Your task to perform on an android device: Open location settings Image 0: 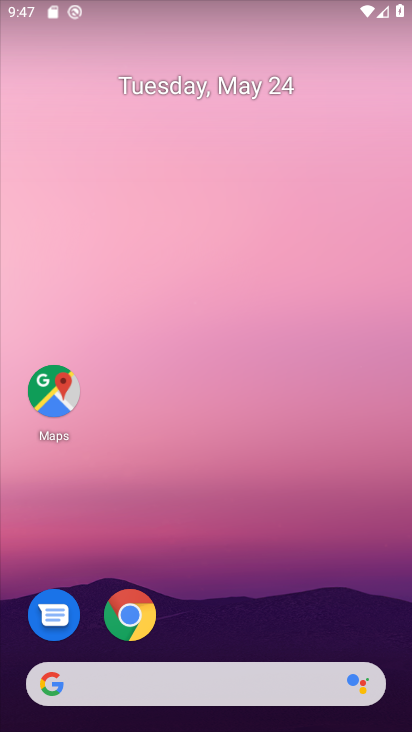
Step 0: drag from (390, 637) to (385, 251)
Your task to perform on an android device: Open location settings Image 1: 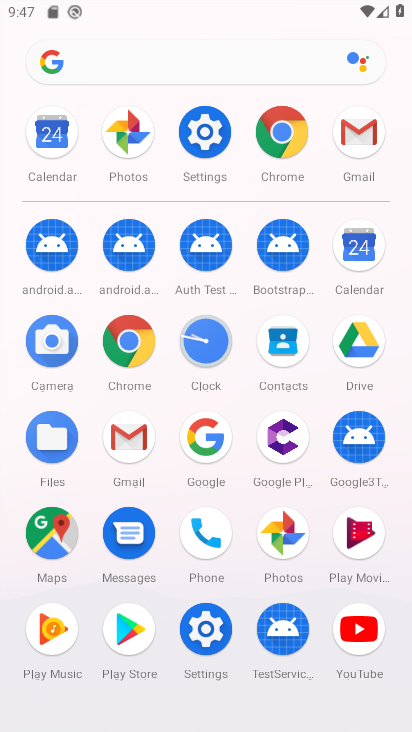
Step 1: click (213, 636)
Your task to perform on an android device: Open location settings Image 2: 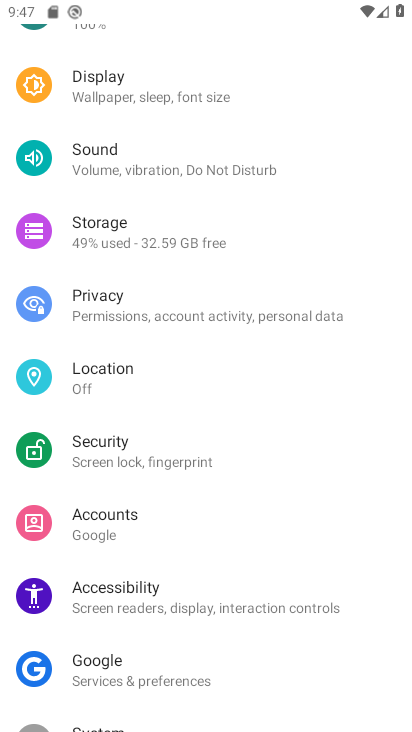
Step 2: drag from (336, 376) to (331, 479)
Your task to perform on an android device: Open location settings Image 3: 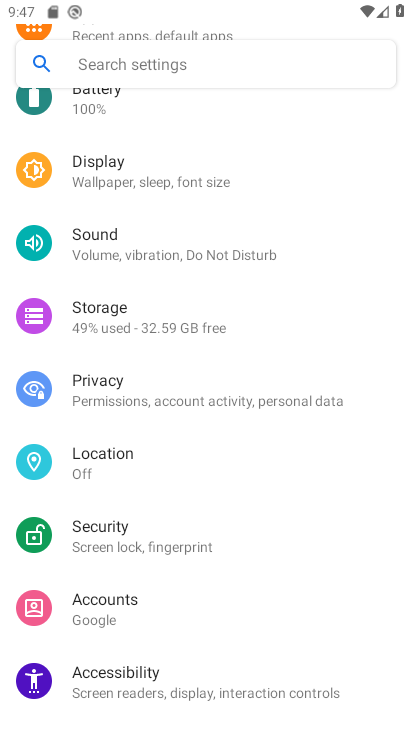
Step 3: drag from (355, 357) to (340, 472)
Your task to perform on an android device: Open location settings Image 4: 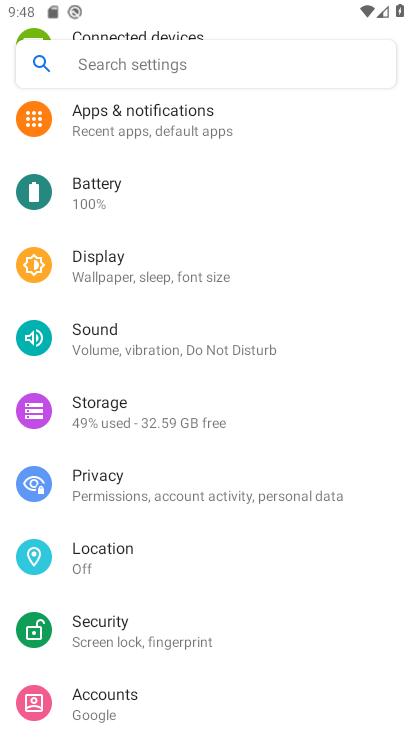
Step 4: drag from (349, 327) to (344, 473)
Your task to perform on an android device: Open location settings Image 5: 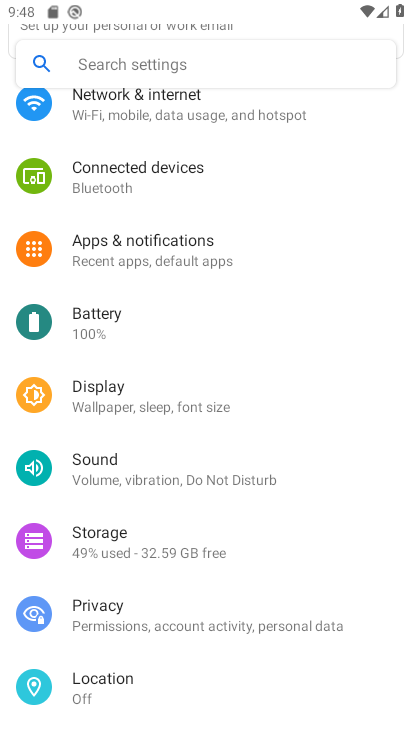
Step 5: drag from (343, 292) to (338, 407)
Your task to perform on an android device: Open location settings Image 6: 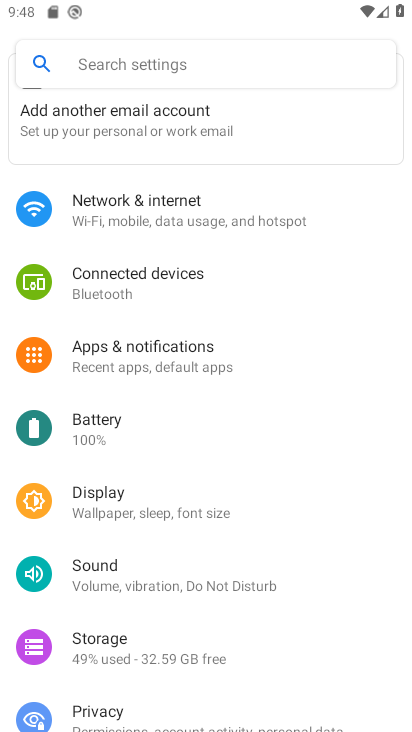
Step 6: drag from (345, 285) to (346, 400)
Your task to perform on an android device: Open location settings Image 7: 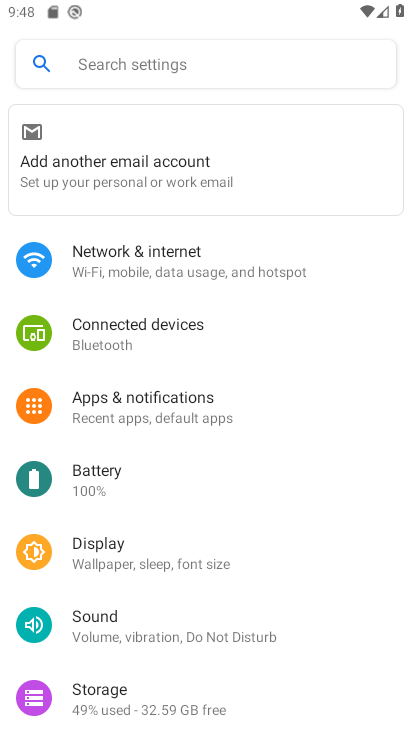
Step 7: drag from (349, 309) to (352, 434)
Your task to perform on an android device: Open location settings Image 8: 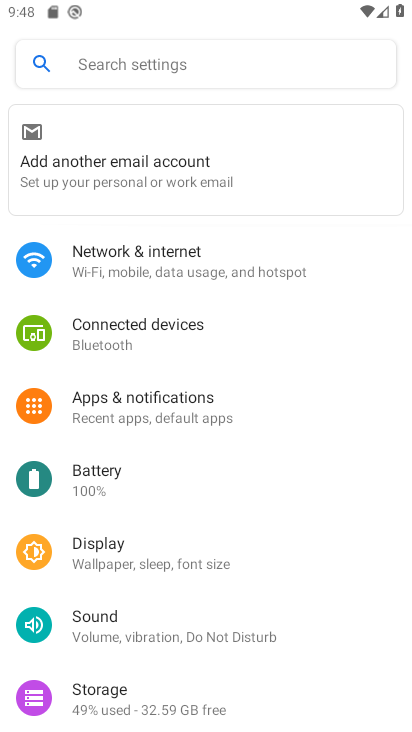
Step 8: drag from (356, 501) to (350, 423)
Your task to perform on an android device: Open location settings Image 9: 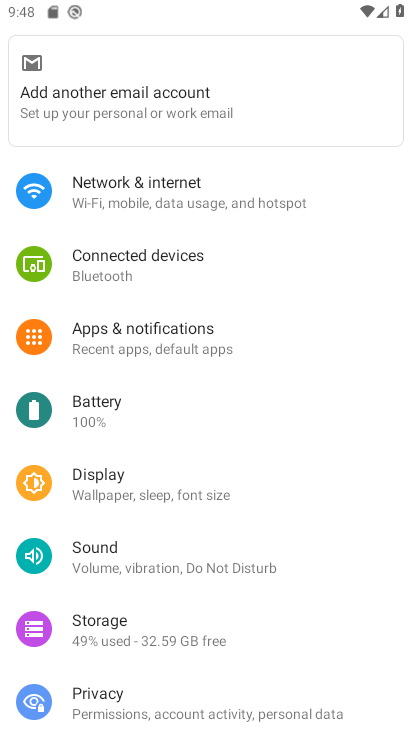
Step 9: drag from (344, 512) to (329, 423)
Your task to perform on an android device: Open location settings Image 10: 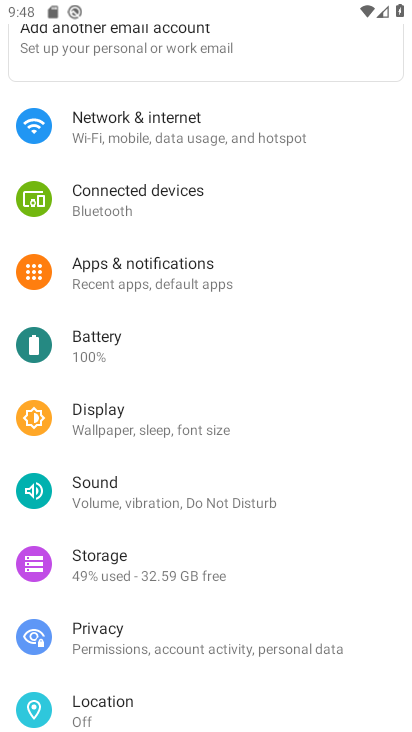
Step 10: drag from (334, 535) to (337, 468)
Your task to perform on an android device: Open location settings Image 11: 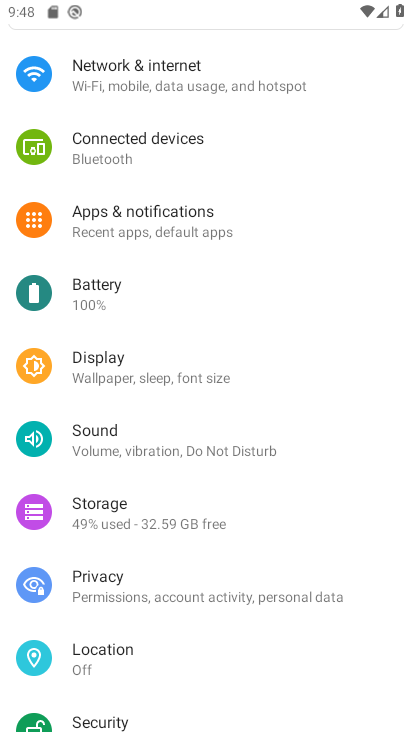
Step 11: drag from (343, 564) to (337, 476)
Your task to perform on an android device: Open location settings Image 12: 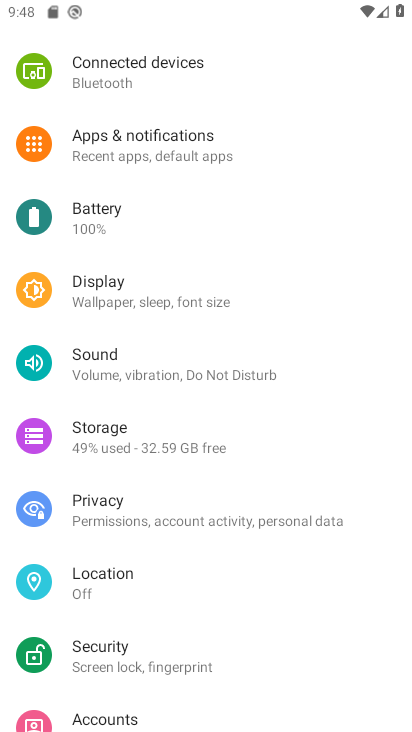
Step 12: drag from (343, 595) to (342, 468)
Your task to perform on an android device: Open location settings Image 13: 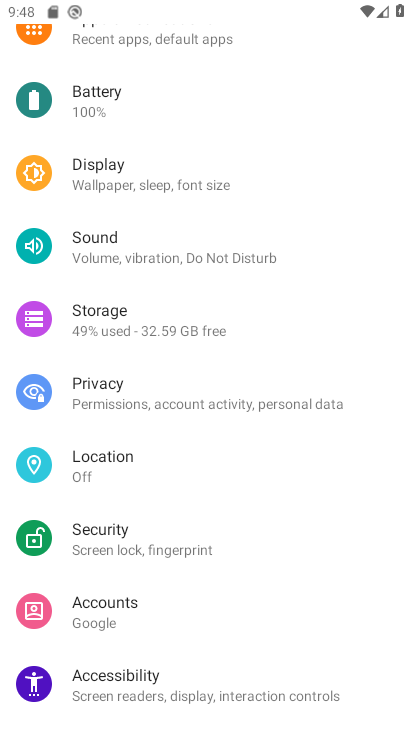
Step 13: click (137, 475)
Your task to perform on an android device: Open location settings Image 14: 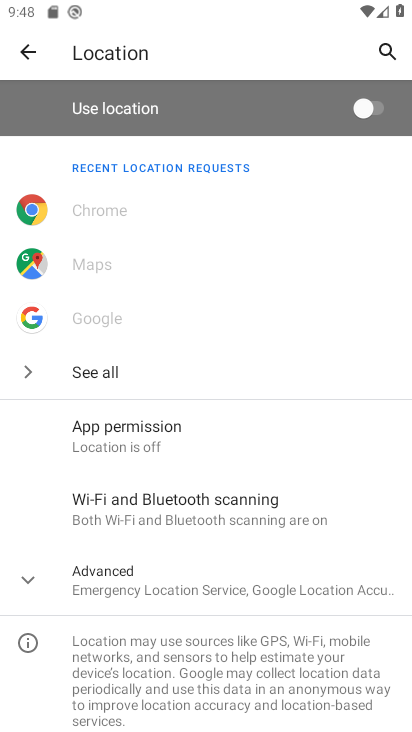
Step 14: task complete